Your task to perform on an android device: What's the weather going to be this weekend? Image 0: 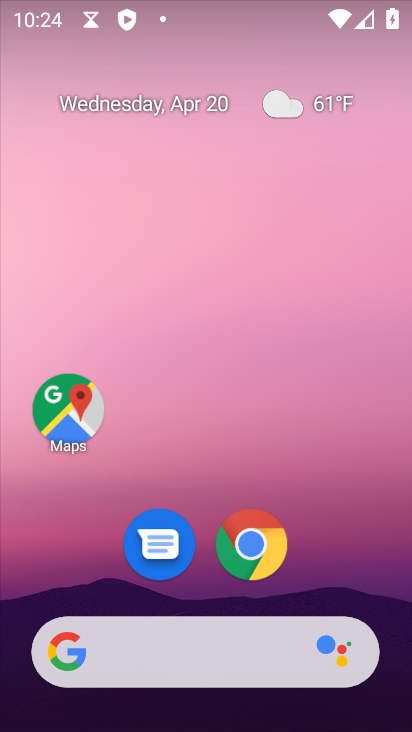
Step 0: click (196, 655)
Your task to perform on an android device: What's the weather going to be this weekend? Image 1: 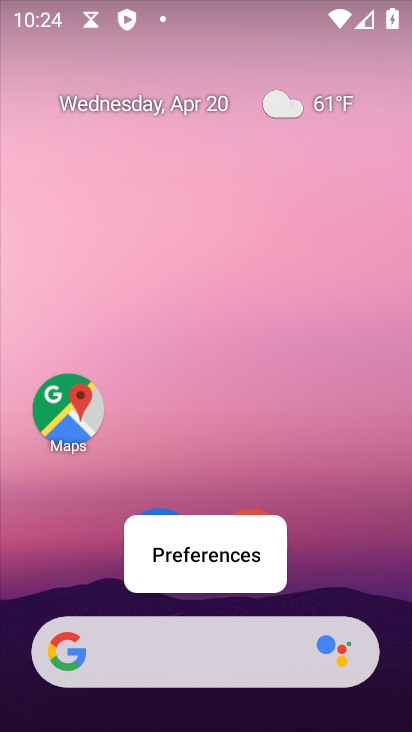
Step 1: click (329, 104)
Your task to perform on an android device: What's the weather going to be this weekend? Image 2: 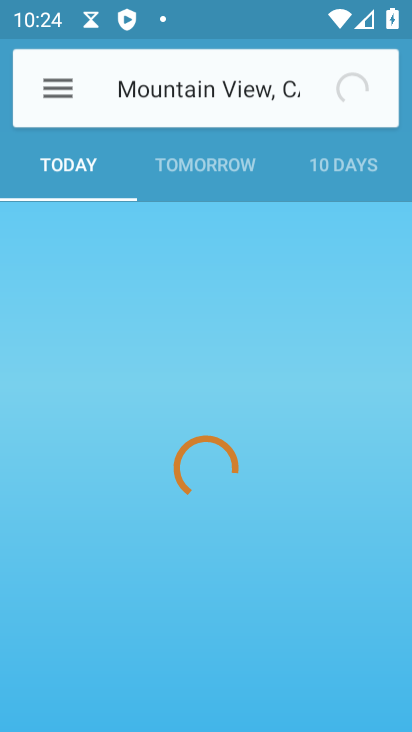
Step 2: click (322, 97)
Your task to perform on an android device: What's the weather going to be this weekend? Image 3: 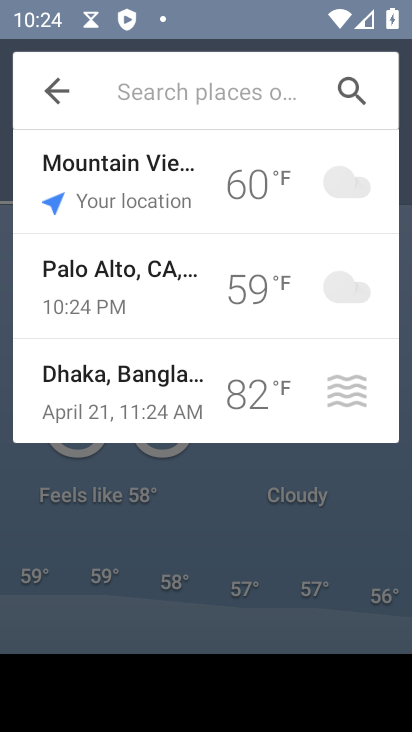
Step 3: press back button
Your task to perform on an android device: What's the weather going to be this weekend? Image 4: 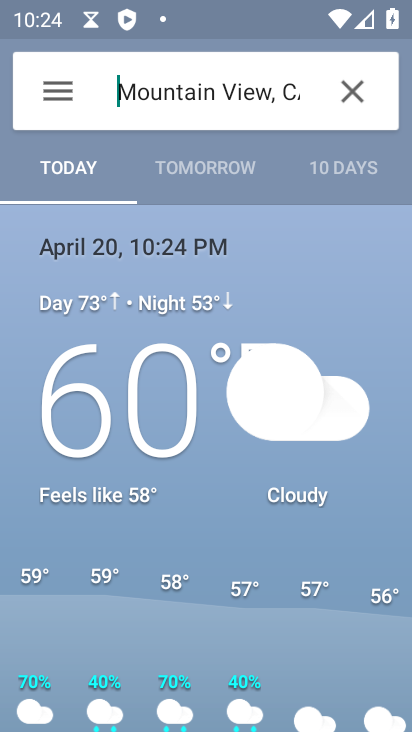
Step 4: click (336, 163)
Your task to perform on an android device: What's the weather going to be this weekend? Image 5: 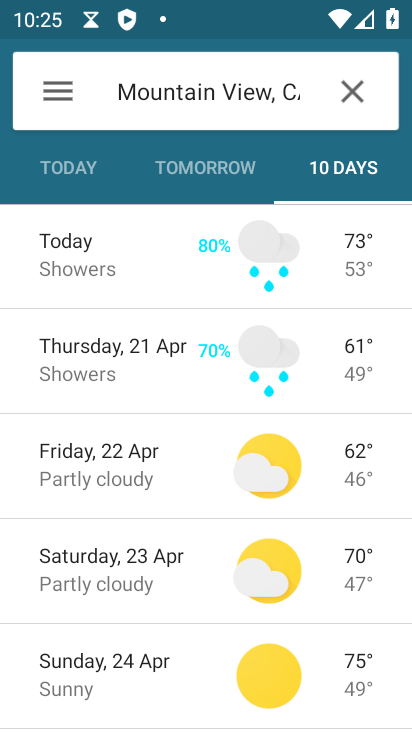
Step 5: click (128, 566)
Your task to perform on an android device: What's the weather going to be this weekend? Image 6: 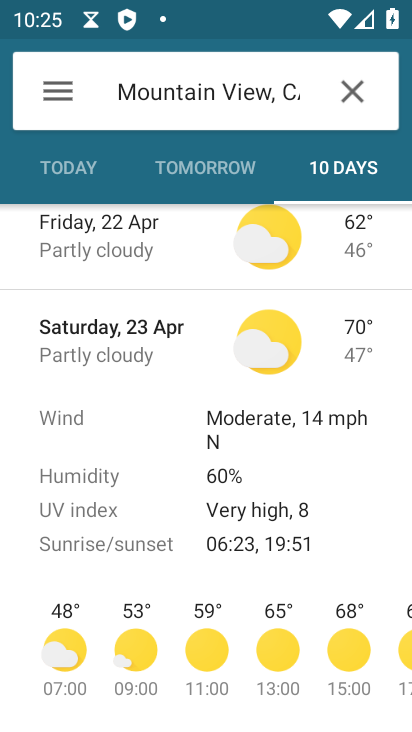
Step 6: task complete